Your task to perform on an android device: Clear the shopping cart on walmart. Add "razer blackwidow" to the cart on walmart Image 0: 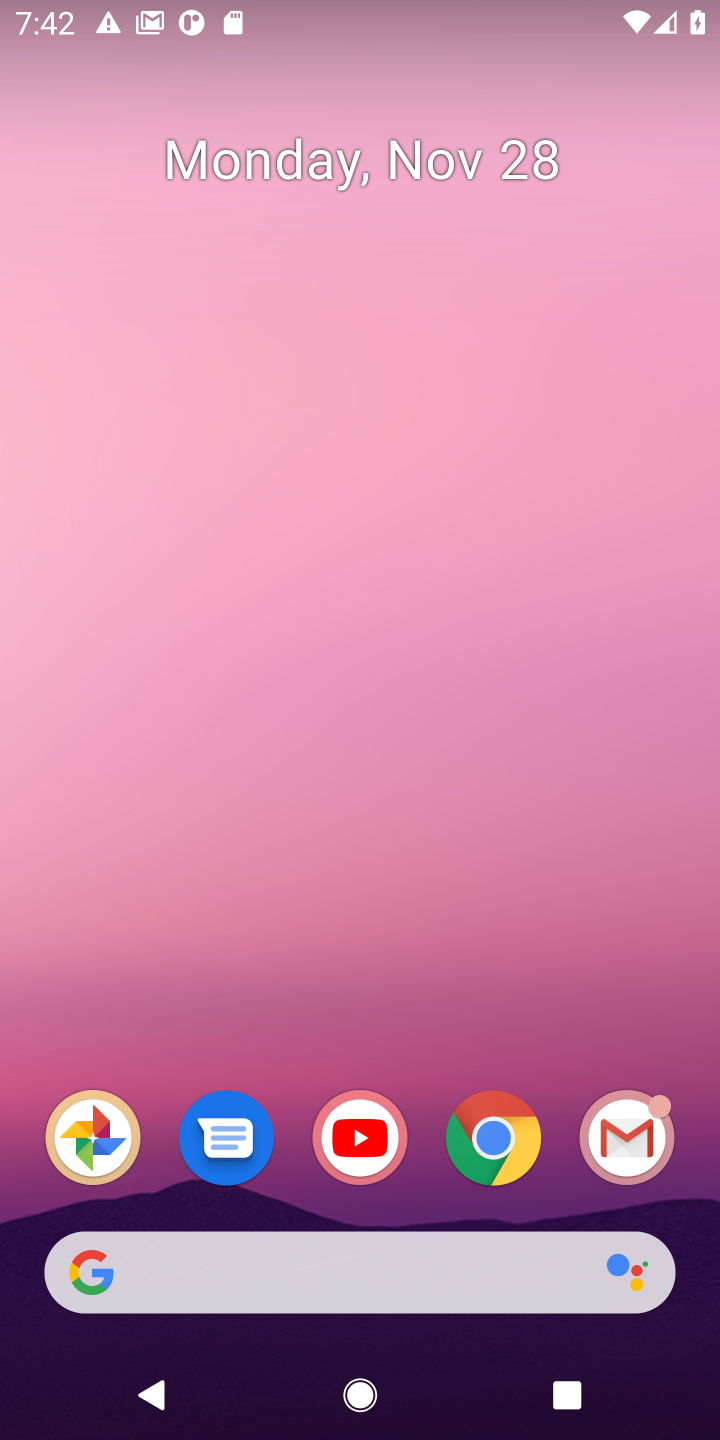
Step 0: click (494, 1138)
Your task to perform on an android device: Clear the shopping cart on walmart. Add "razer blackwidow" to the cart on walmart Image 1: 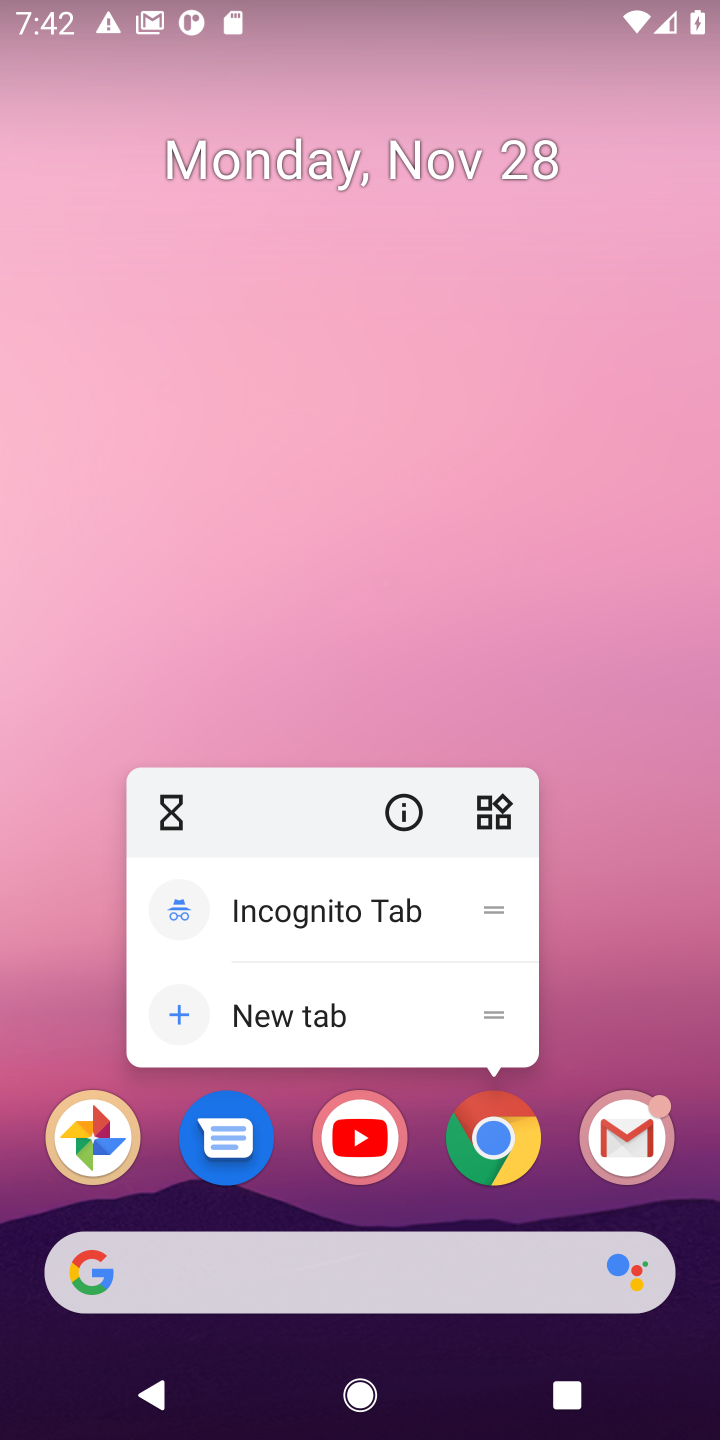
Step 1: click (494, 1138)
Your task to perform on an android device: Clear the shopping cart on walmart. Add "razer blackwidow" to the cart on walmart Image 2: 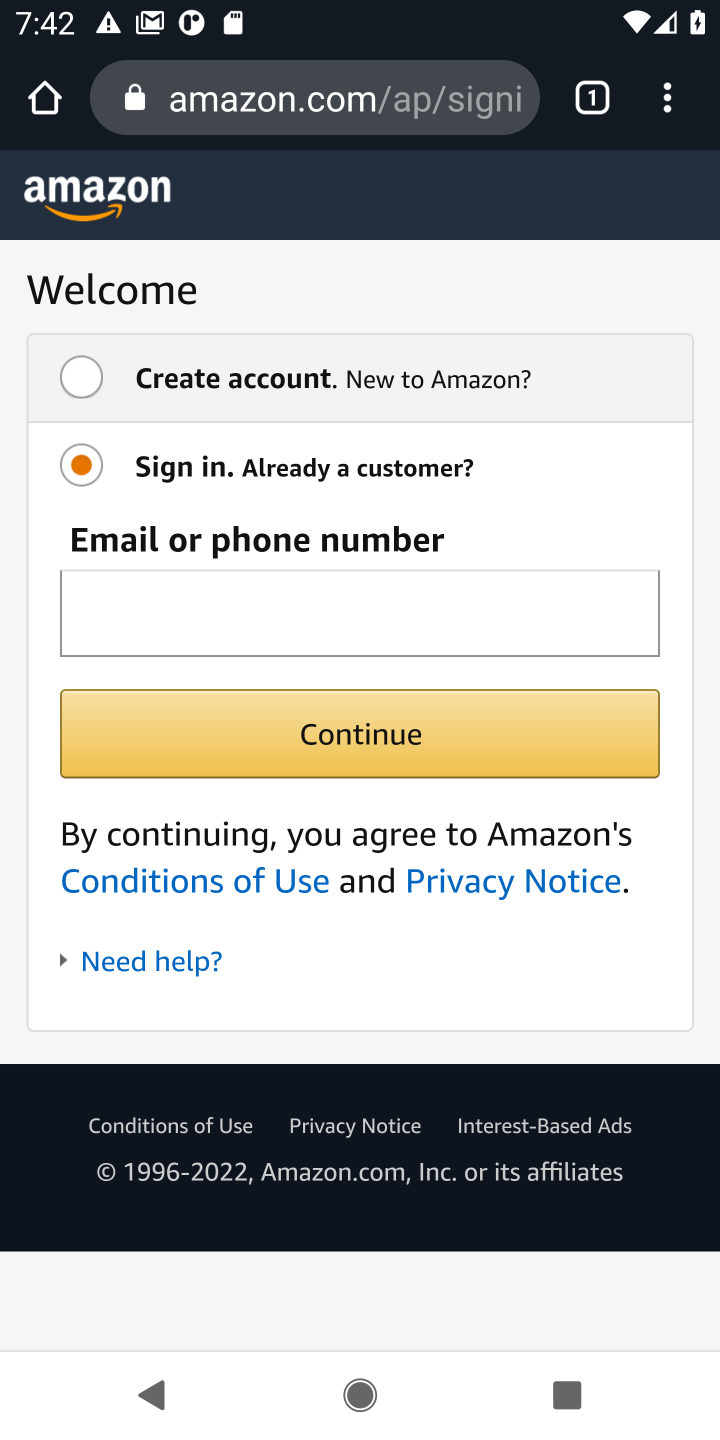
Step 2: click (325, 102)
Your task to perform on an android device: Clear the shopping cart on walmart. Add "razer blackwidow" to the cart on walmart Image 3: 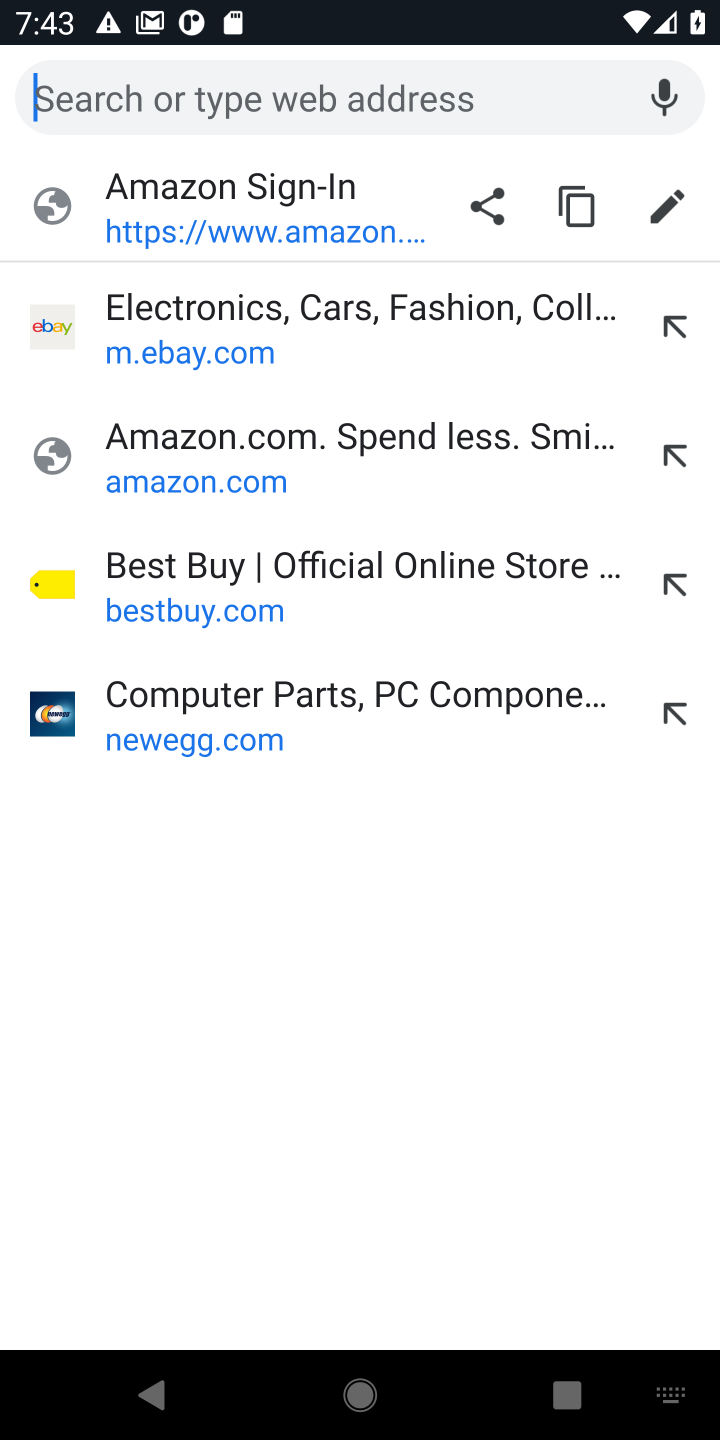
Step 3: type "walmart.com"
Your task to perform on an android device: Clear the shopping cart on walmart. Add "razer blackwidow" to the cart on walmart Image 4: 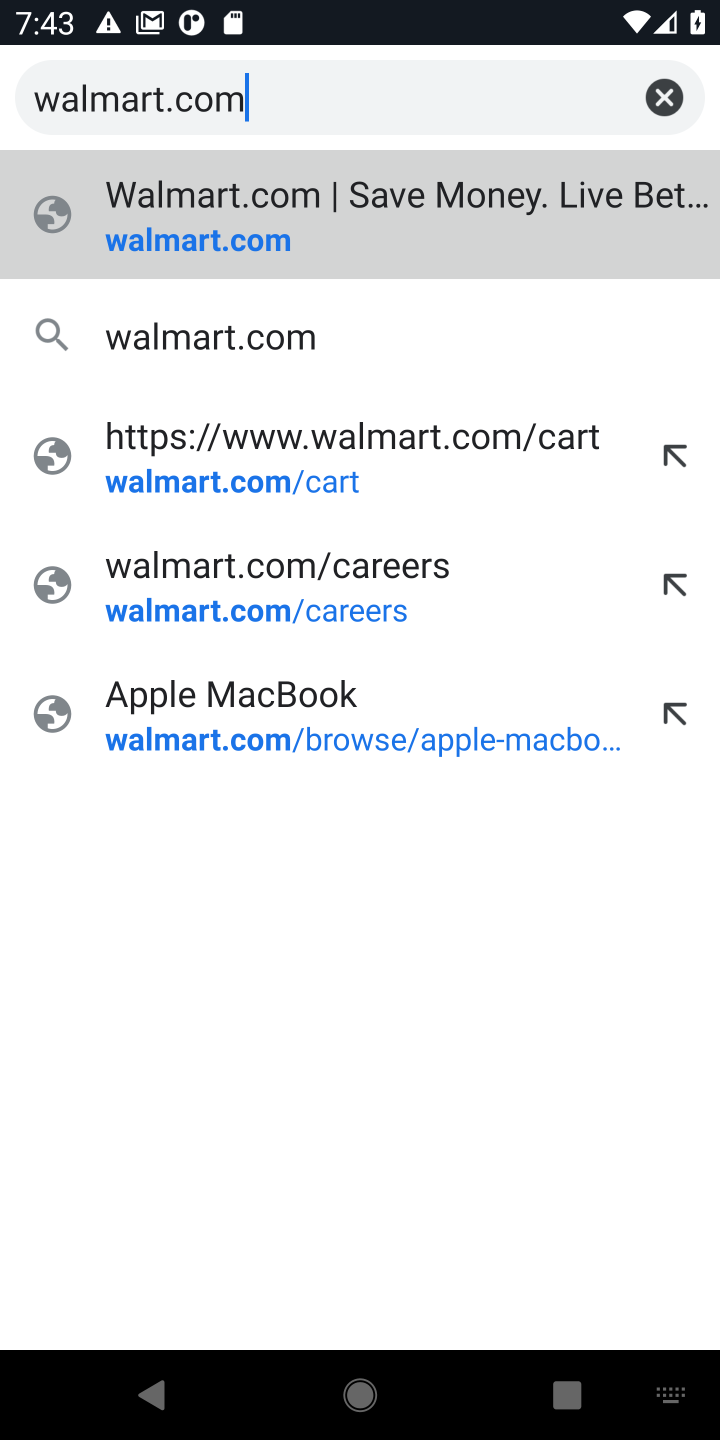
Step 4: click (243, 251)
Your task to perform on an android device: Clear the shopping cart on walmart. Add "razer blackwidow" to the cart on walmart Image 5: 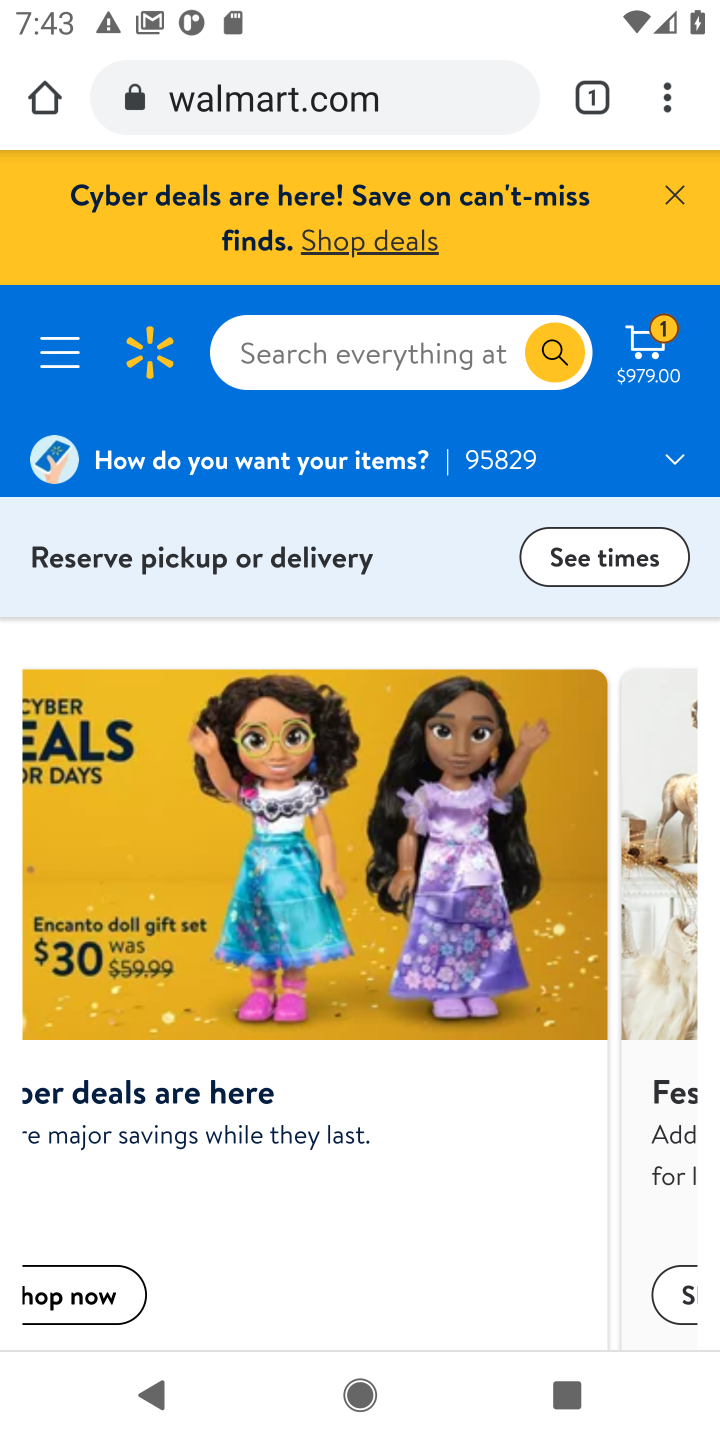
Step 5: click (644, 354)
Your task to perform on an android device: Clear the shopping cart on walmart. Add "razer blackwidow" to the cart on walmart Image 6: 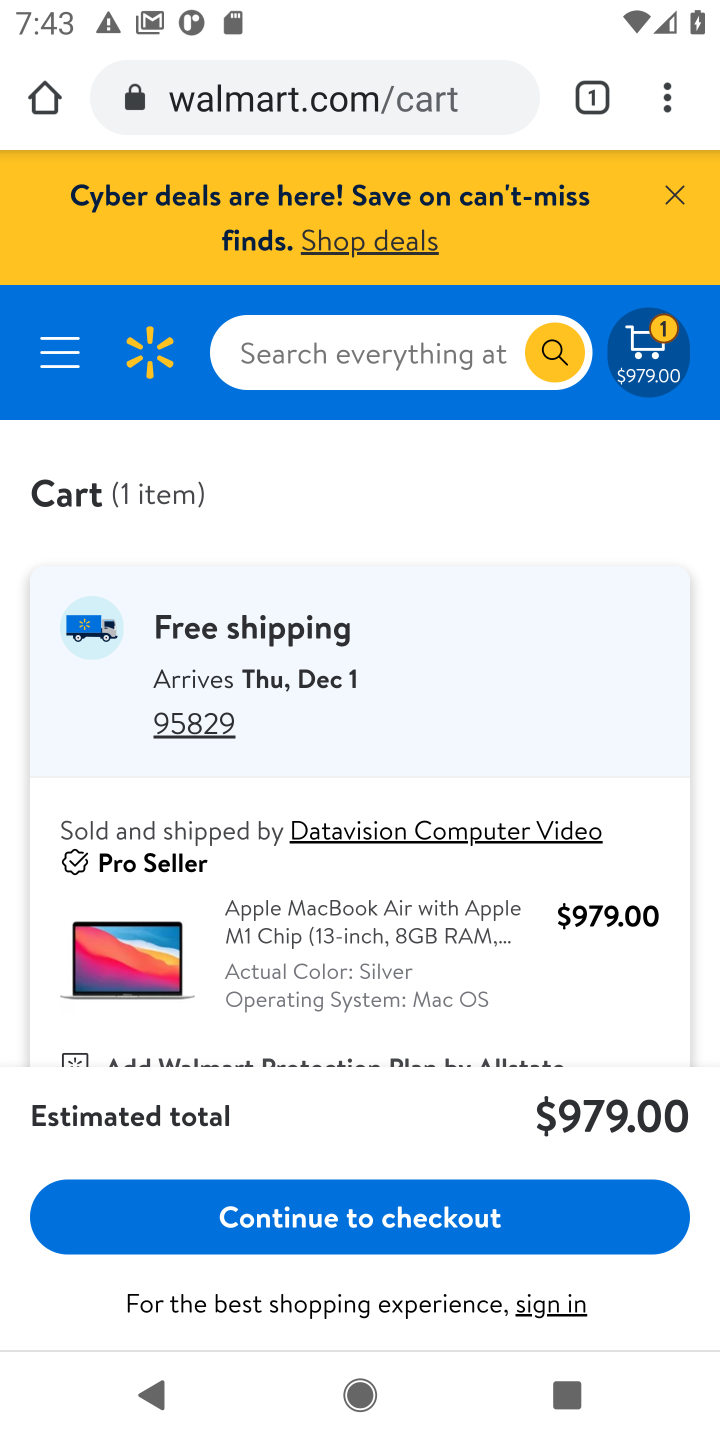
Step 6: drag from (653, 843) to (605, 475)
Your task to perform on an android device: Clear the shopping cart on walmart. Add "razer blackwidow" to the cart on walmart Image 7: 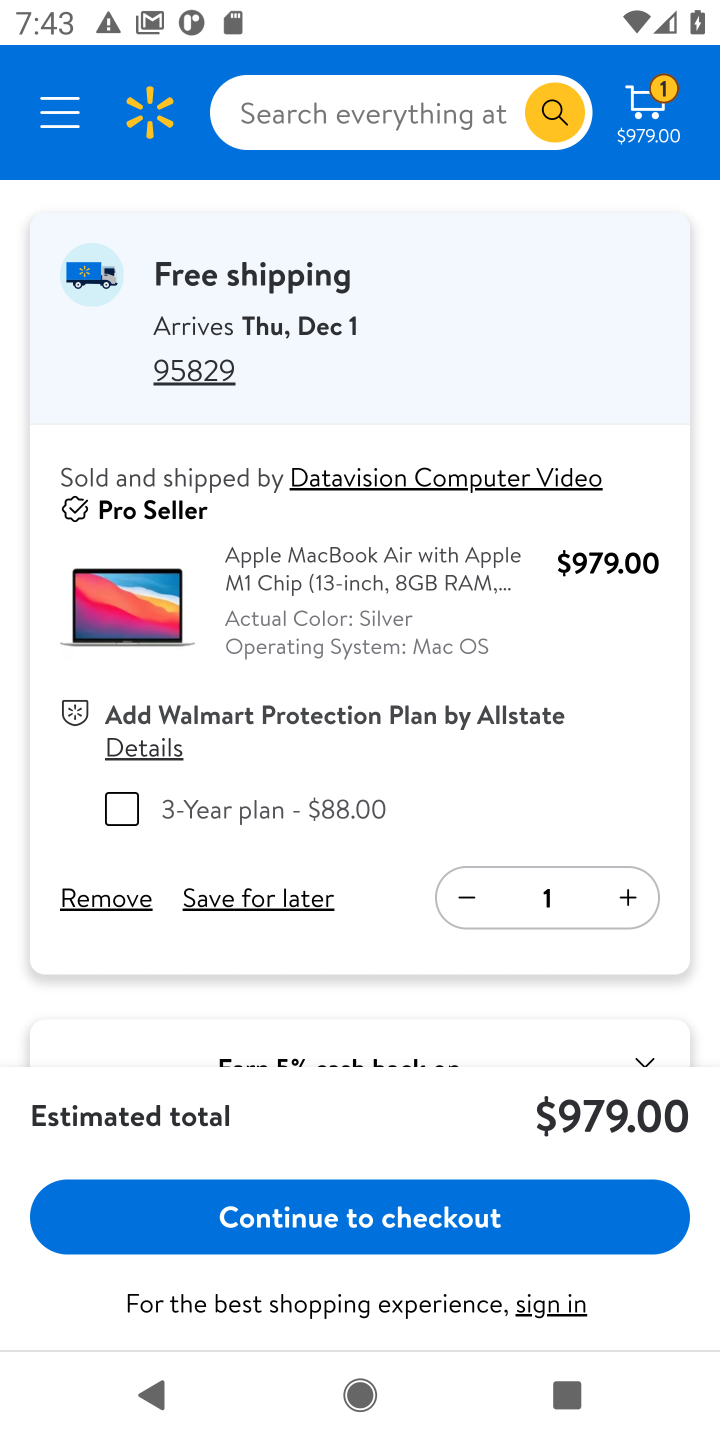
Step 7: click (79, 902)
Your task to perform on an android device: Clear the shopping cart on walmart. Add "razer blackwidow" to the cart on walmart Image 8: 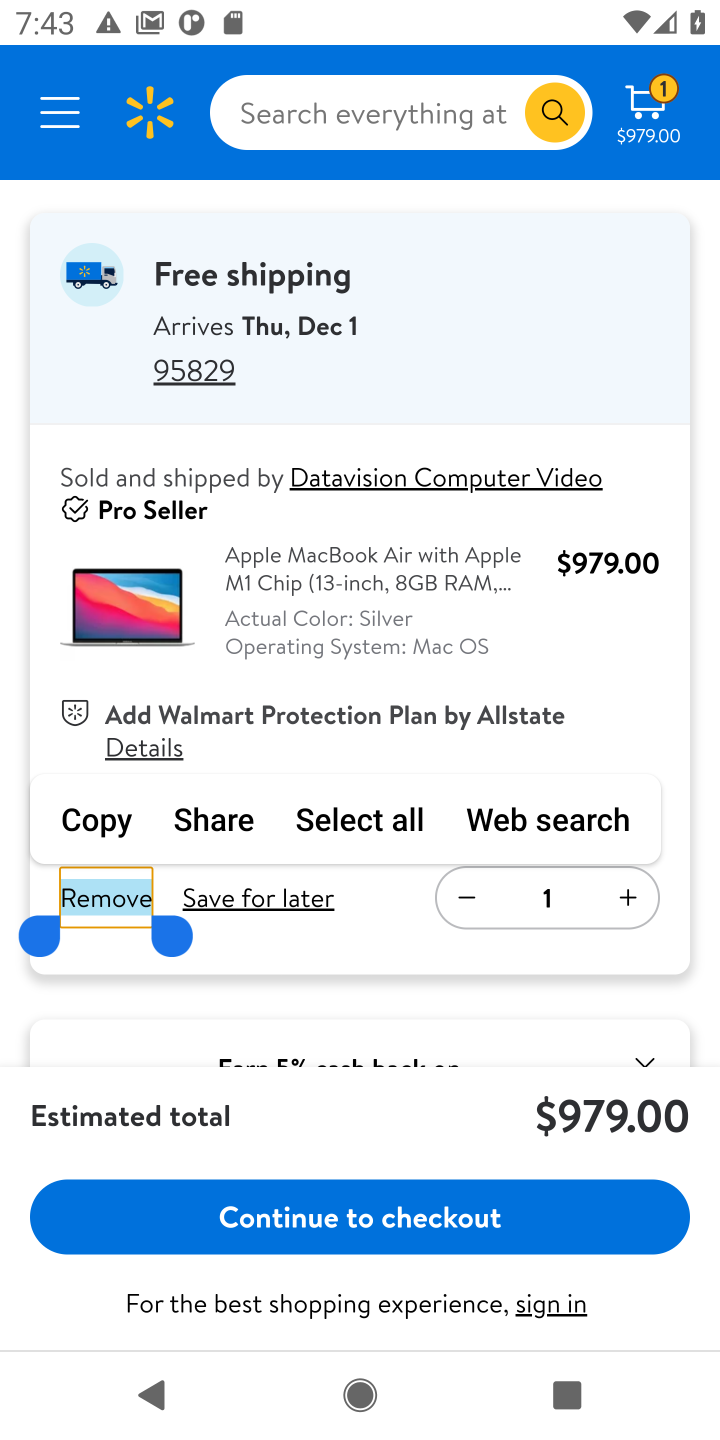
Step 8: click (79, 902)
Your task to perform on an android device: Clear the shopping cart on walmart. Add "razer blackwidow" to the cart on walmart Image 9: 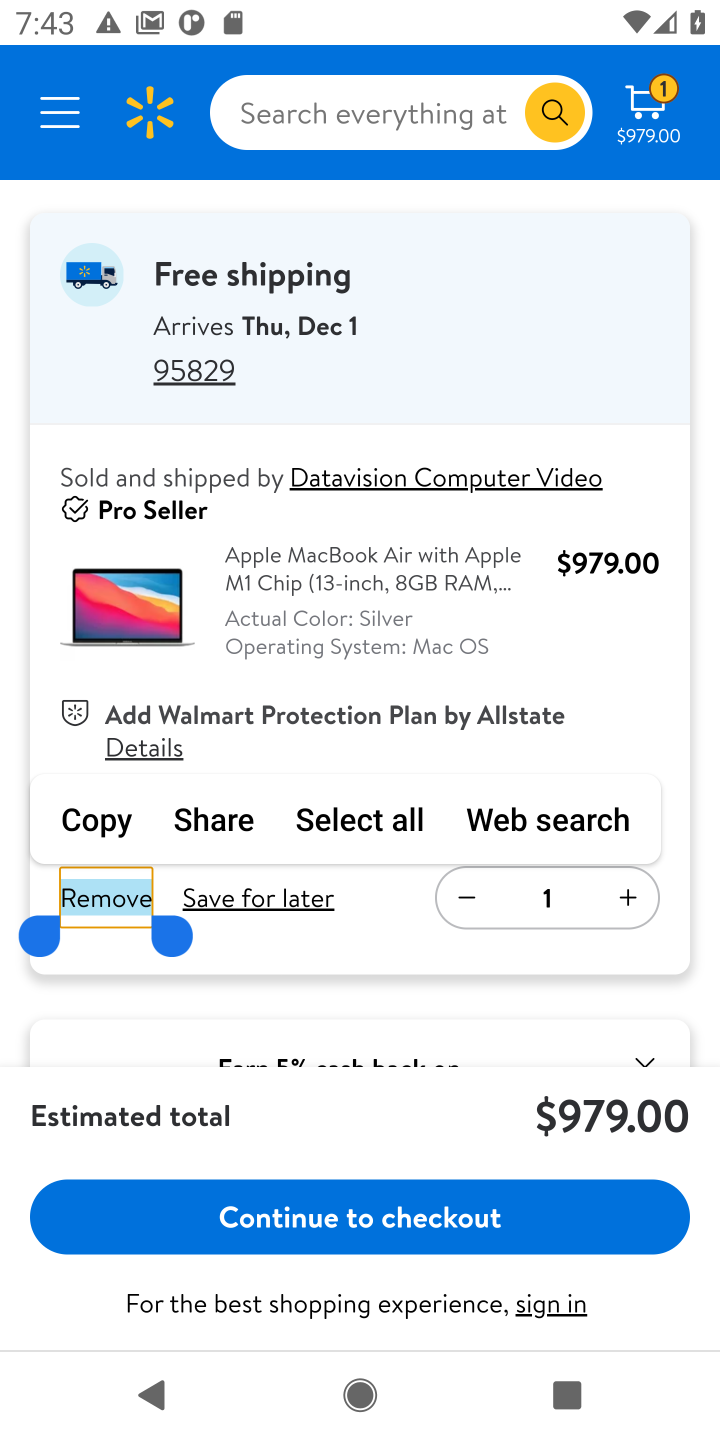
Step 9: click (69, 948)
Your task to perform on an android device: Clear the shopping cart on walmart. Add "razer blackwidow" to the cart on walmart Image 10: 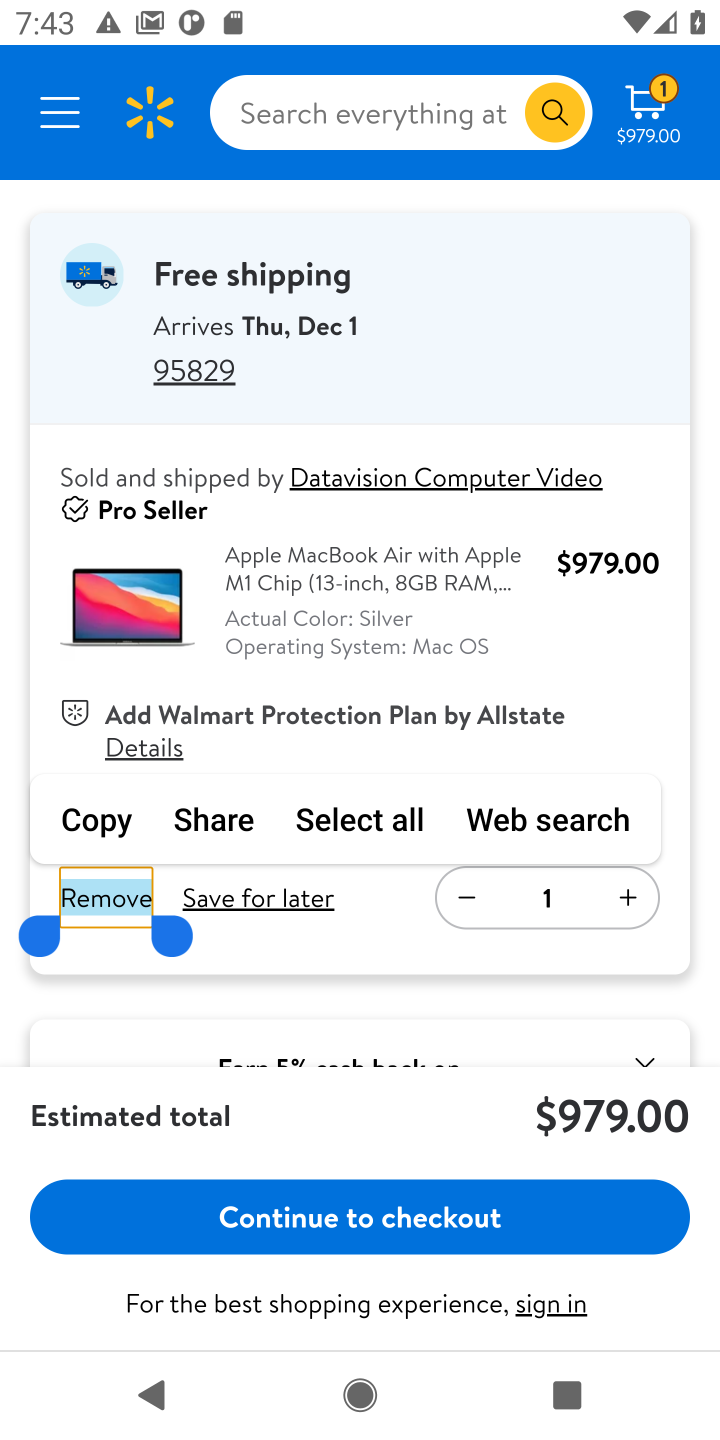
Step 10: click (85, 898)
Your task to perform on an android device: Clear the shopping cart on walmart. Add "razer blackwidow" to the cart on walmart Image 11: 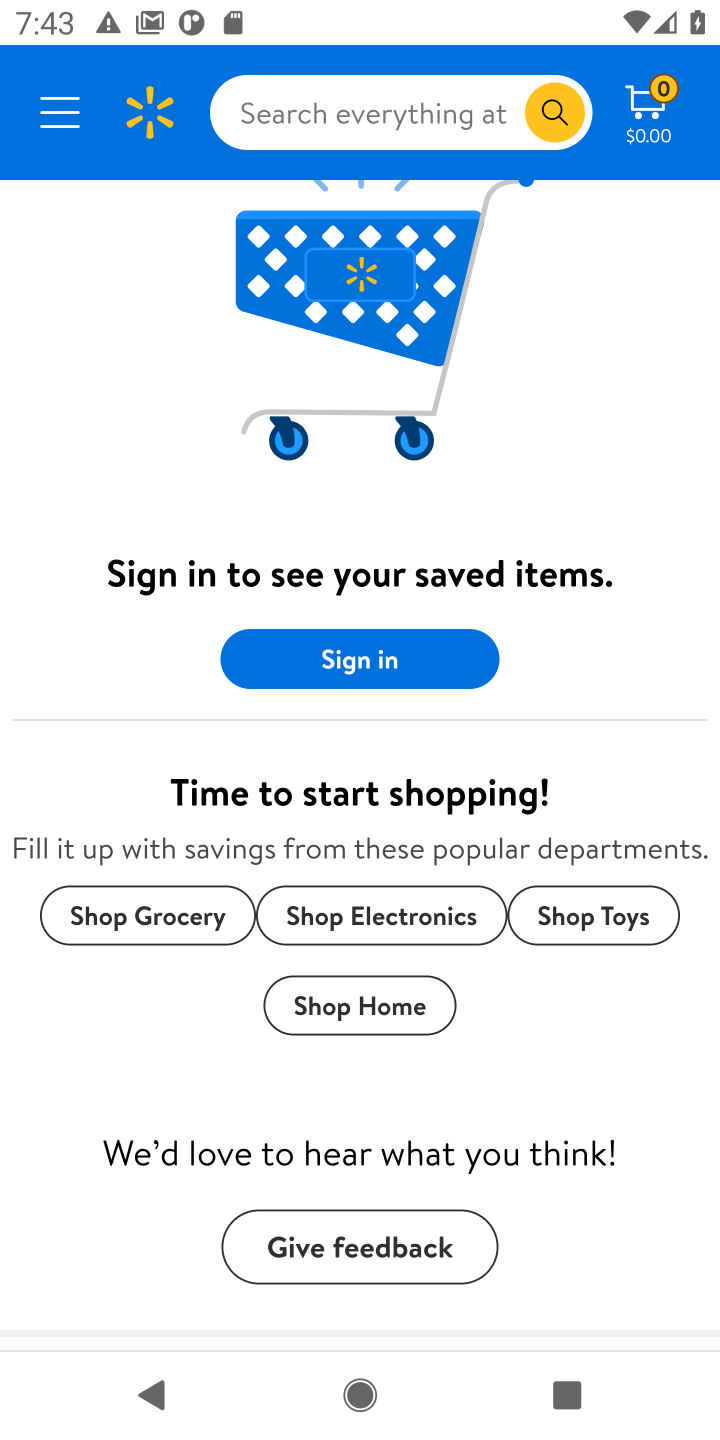
Step 11: click (250, 119)
Your task to perform on an android device: Clear the shopping cart on walmart. Add "razer blackwidow" to the cart on walmart Image 12: 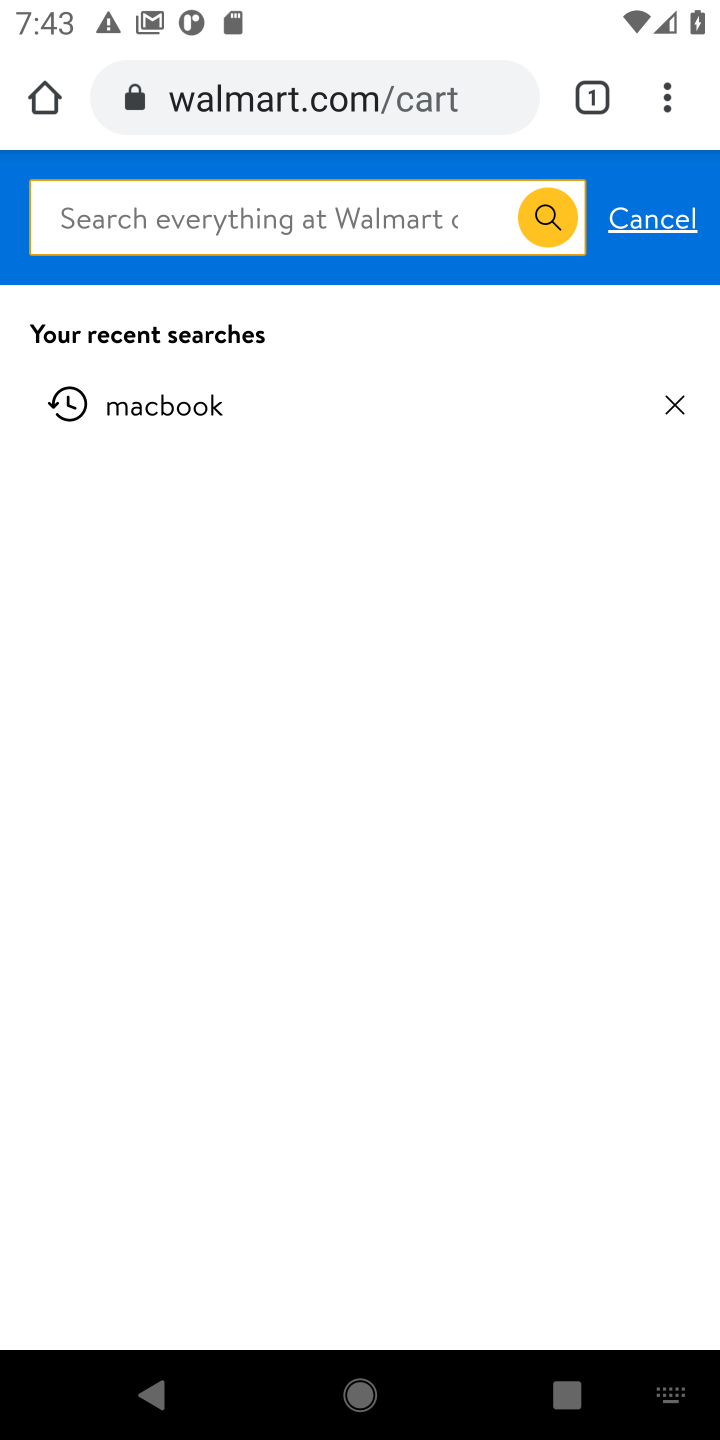
Step 12: type "razer blackwidow"
Your task to perform on an android device: Clear the shopping cart on walmart. Add "razer blackwidow" to the cart on walmart Image 13: 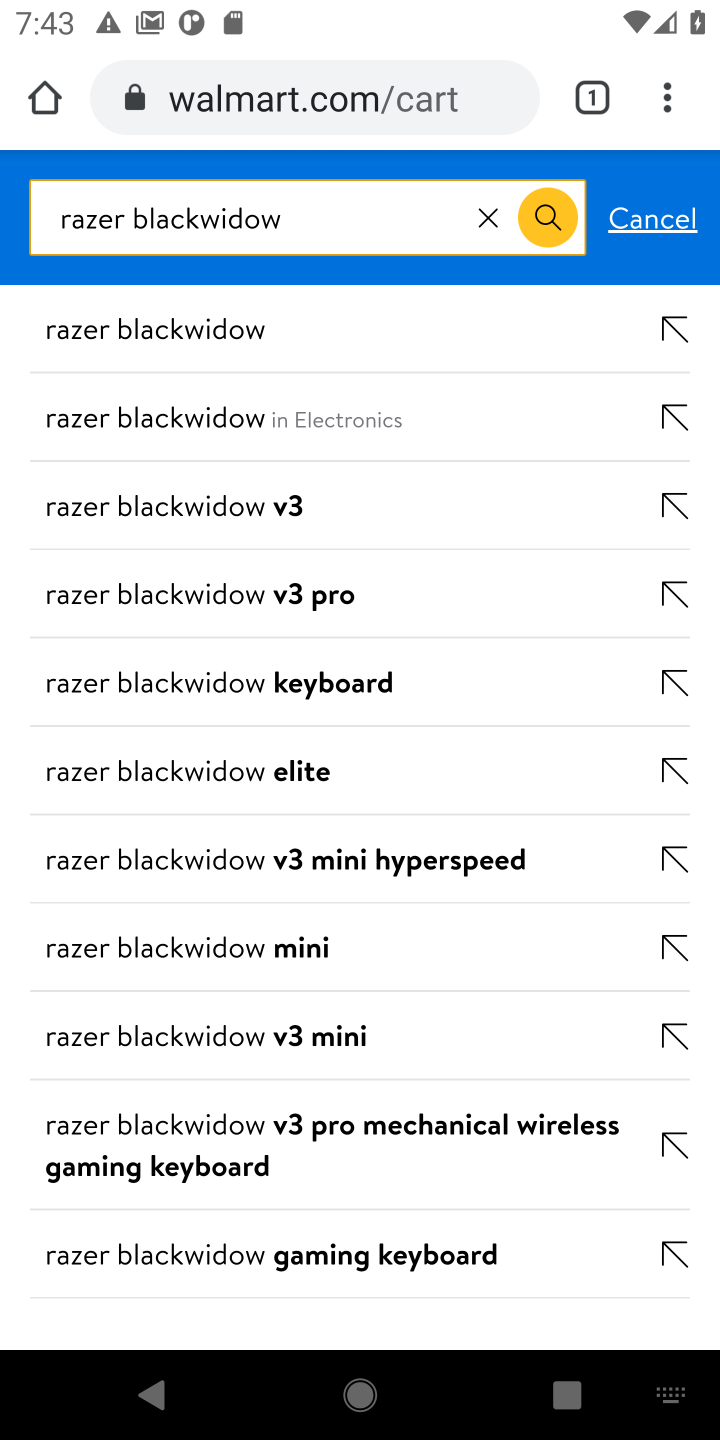
Step 13: click (154, 349)
Your task to perform on an android device: Clear the shopping cart on walmart. Add "razer blackwidow" to the cart on walmart Image 14: 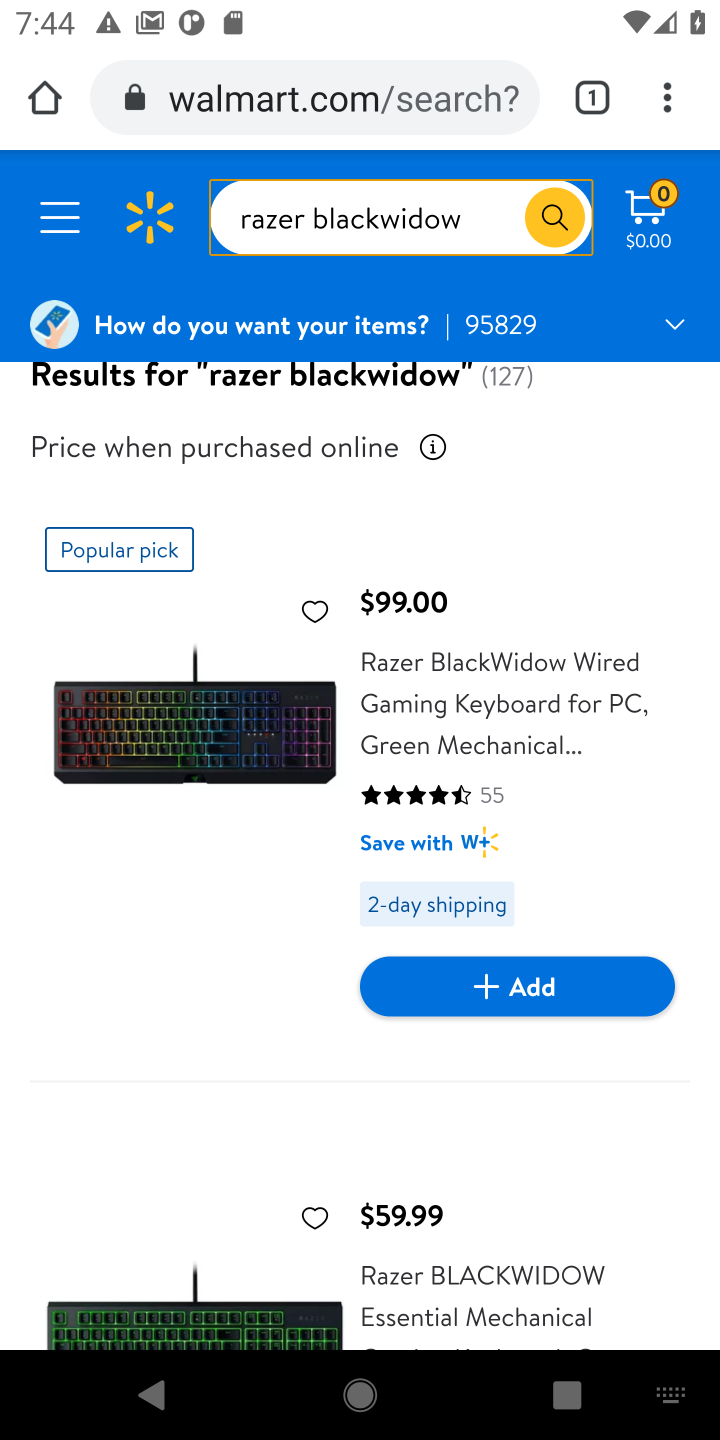
Step 14: click (544, 993)
Your task to perform on an android device: Clear the shopping cart on walmart. Add "razer blackwidow" to the cart on walmart Image 15: 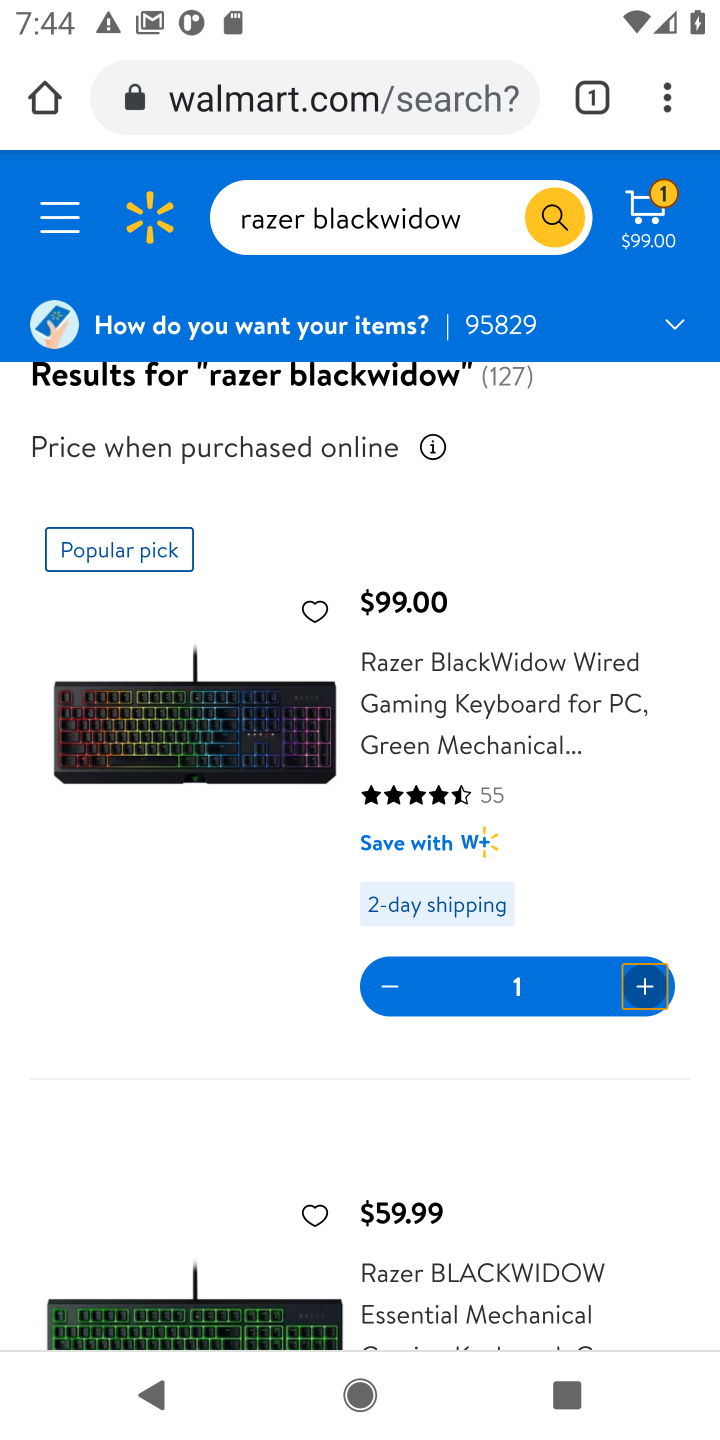
Step 15: task complete